Your task to perform on an android device: Is it going to rain this weekend? Image 0: 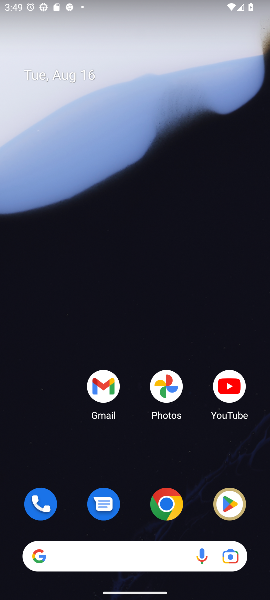
Step 0: drag from (139, 496) to (100, 1)
Your task to perform on an android device: Is it going to rain this weekend? Image 1: 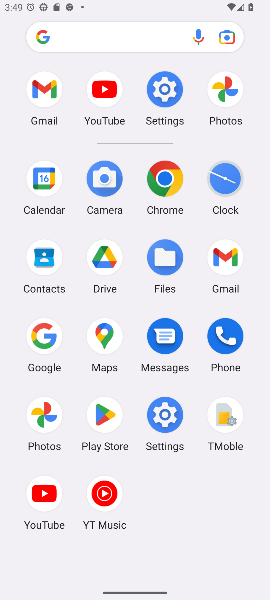
Step 1: click (37, 337)
Your task to perform on an android device: Is it going to rain this weekend? Image 2: 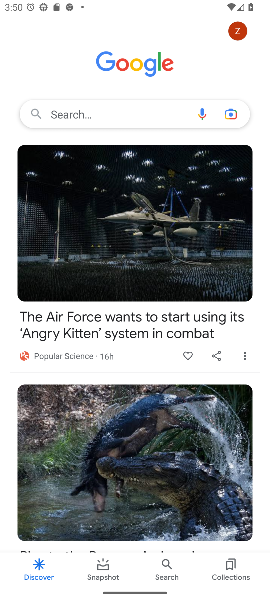
Step 2: click (67, 113)
Your task to perform on an android device: Is it going to rain this weekend? Image 3: 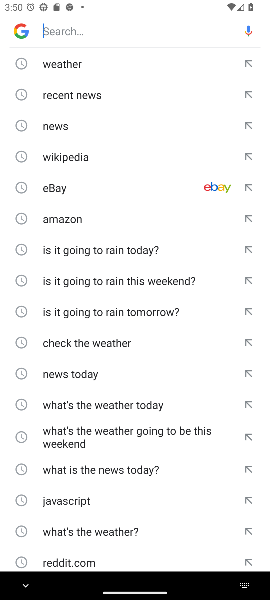
Step 3: click (68, 58)
Your task to perform on an android device: Is it going to rain this weekend? Image 4: 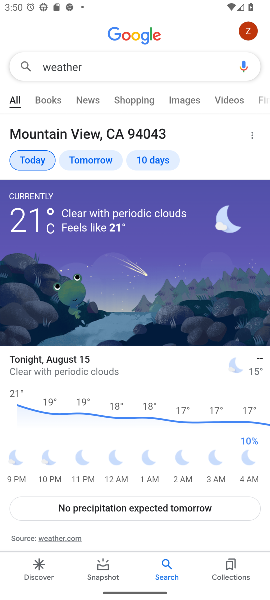
Step 4: click (142, 161)
Your task to perform on an android device: Is it going to rain this weekend? Image 5: 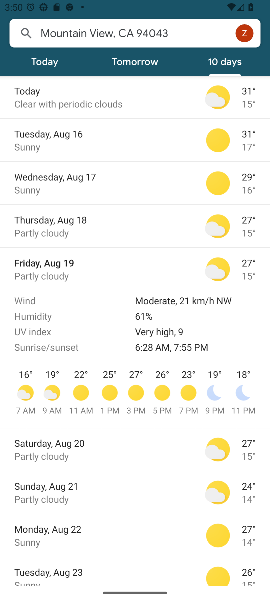
Step 5: task complete